Your task to perform on an android device: check storage Image 0: 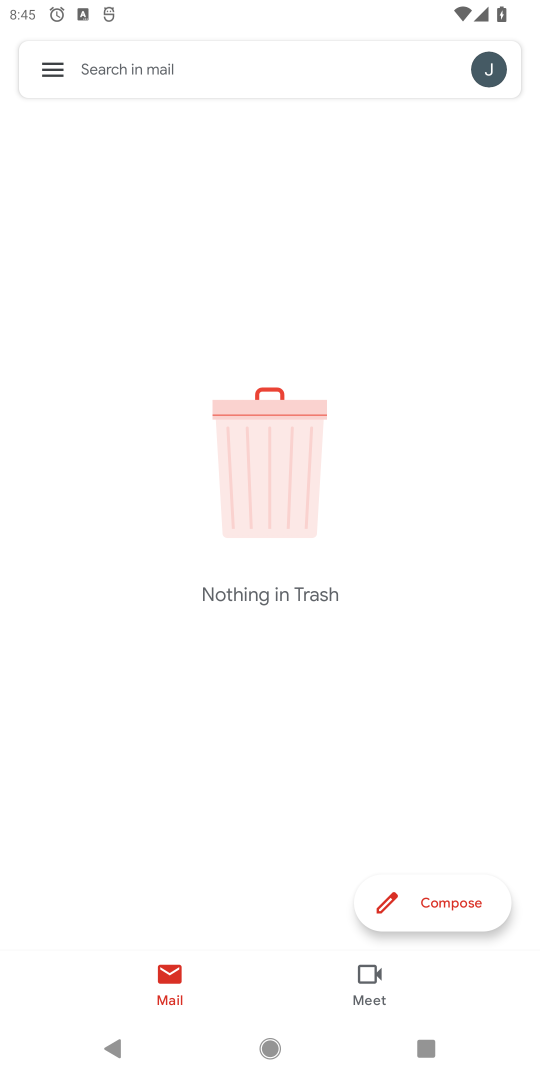
Step 0: press home button
Your task to perform on an android device: check storage Image 1: 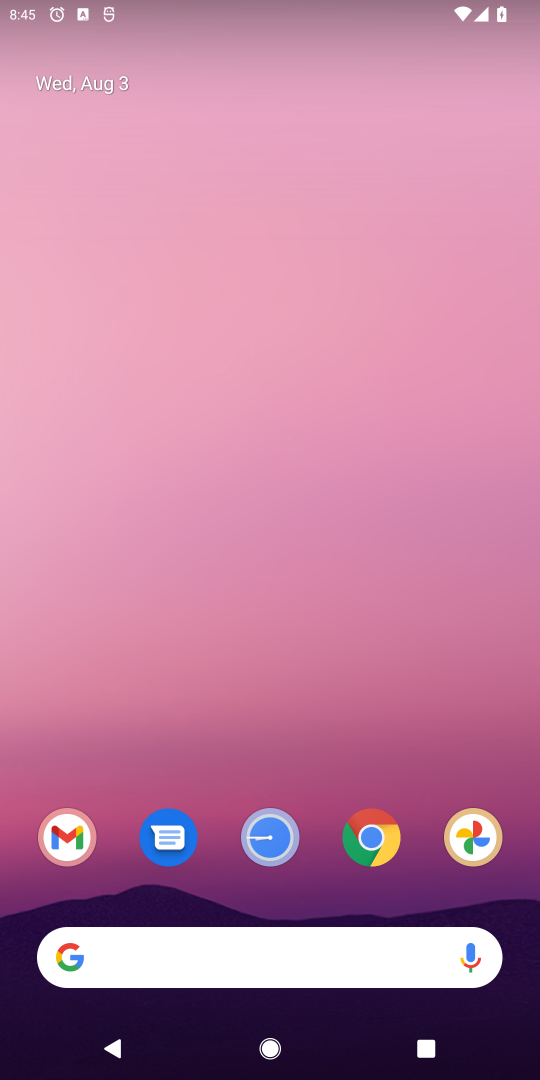
Step 1: drag from (327, 891) to (250, 539)
Your task to perform on an android device: check storage Image 2: 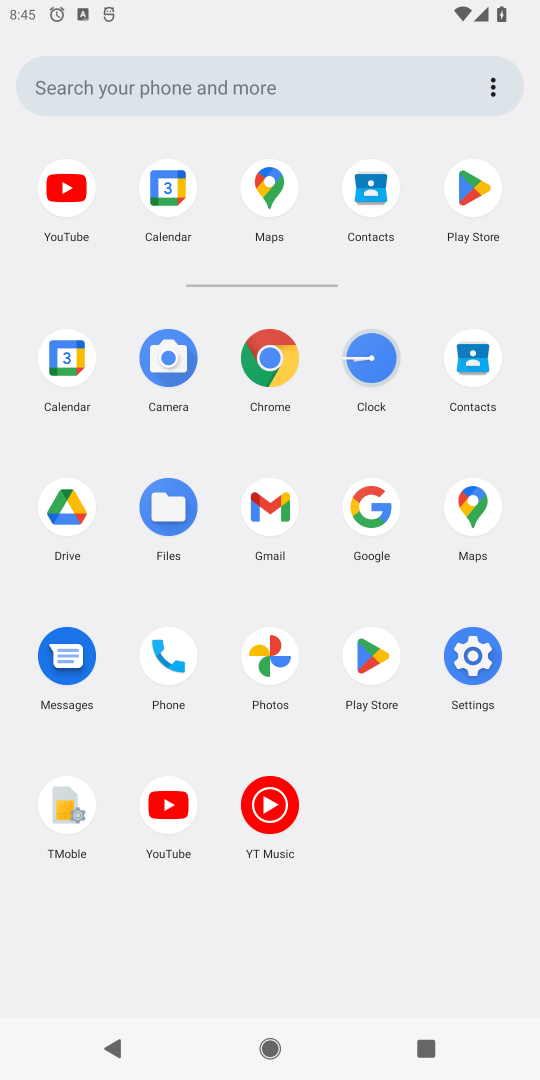
Step 2: click (474, 652)
Your task to perform on an android device: check storage Image 3: 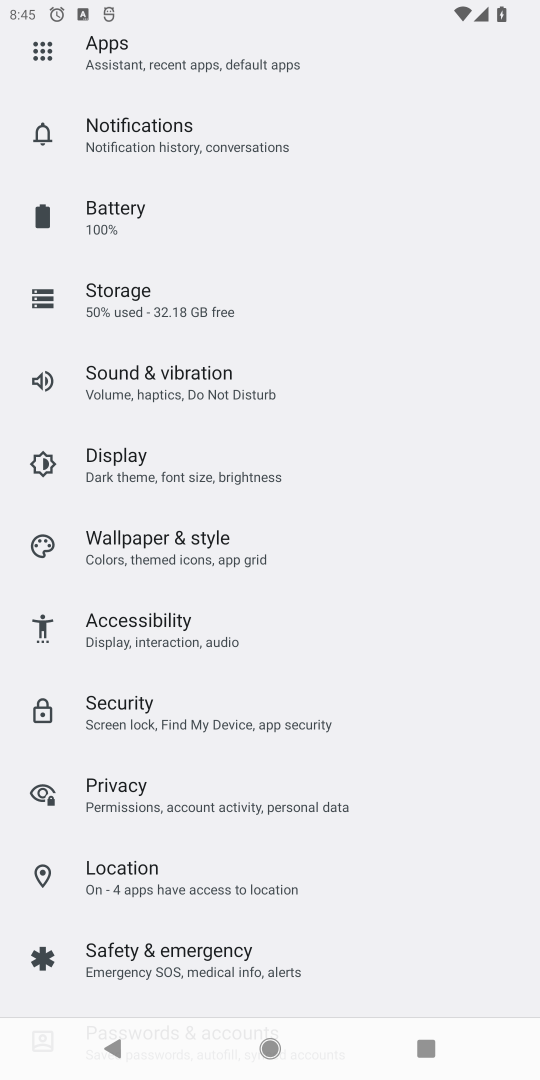
Step 3: click (114, 304)
Your task to perform on an android device: check storage Image 4: 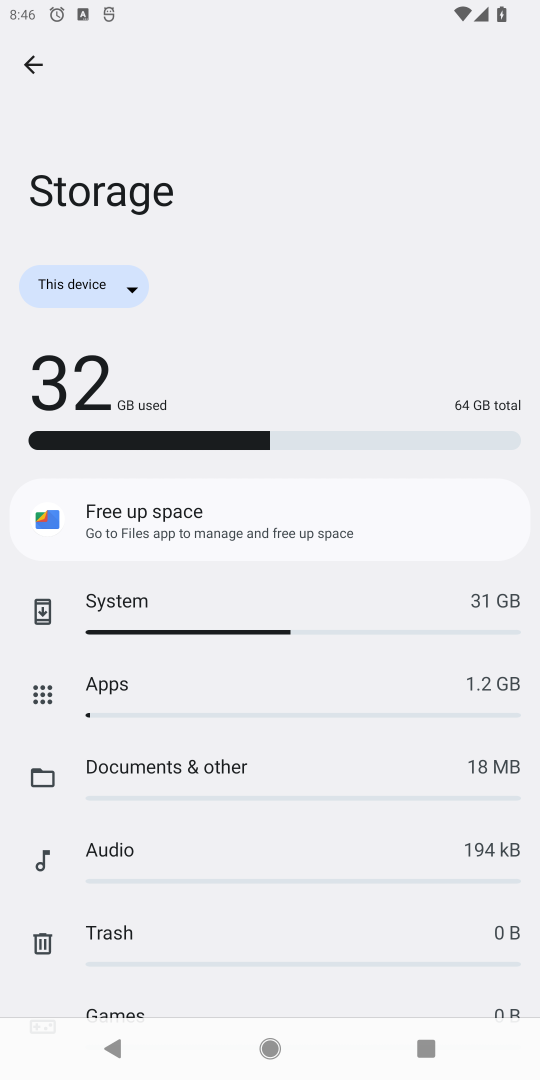
Step 4: task complete